Your task to perform on an android device: turn off translation in the chrome app Image 0: 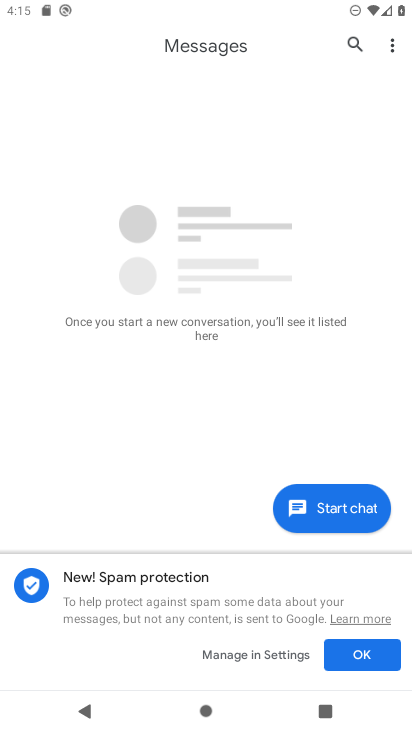
Step 0: press home button
Your task to perform on an android device: turn off translation in the chrome app Image 1: 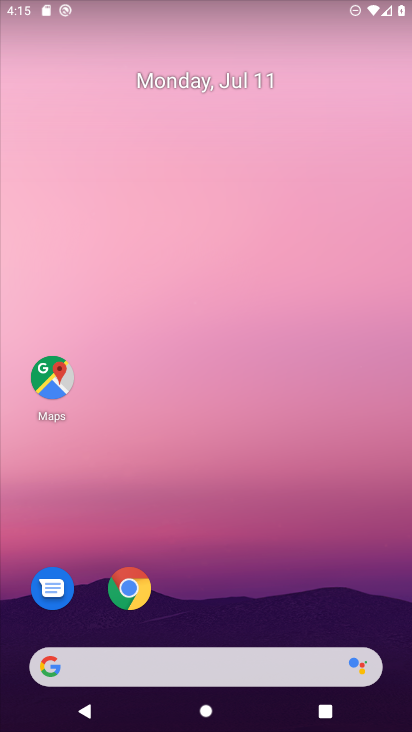
Step 1: drag from (305, 563) to (346, 2)
Your task to perform on an android device: turn off translation in the chrome app Image 2: 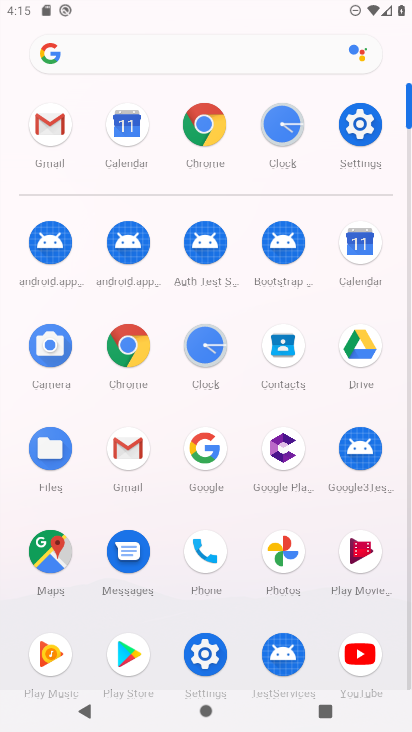
Step 2: click (213, 120)
Your task to perform on an android device: turn off translation in the chrome app Image 3: 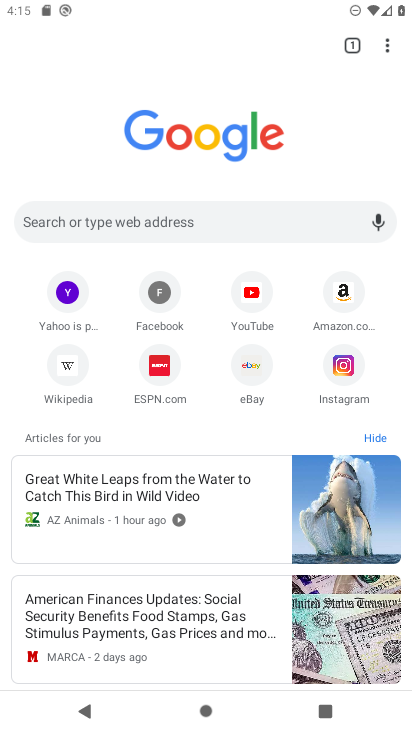
Step 3: drag from (387, 36) to (222, 431)
Your task to perform on an android device: turn off translation in the chrome app Image 4: 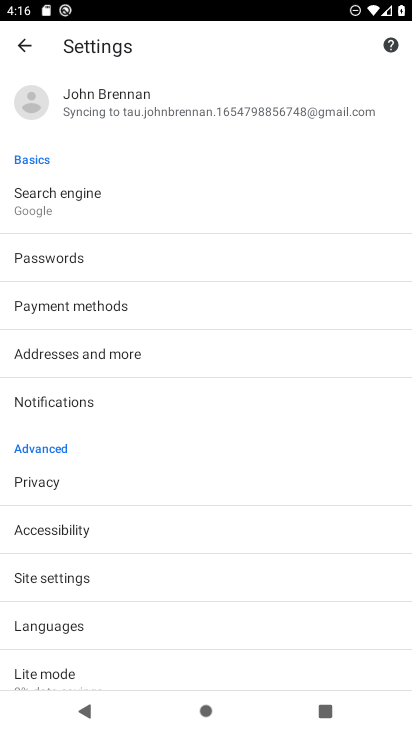
Step 4: click (37, 622)
Your task to perform on an android device: turn off translation in the chrome app Image 5: 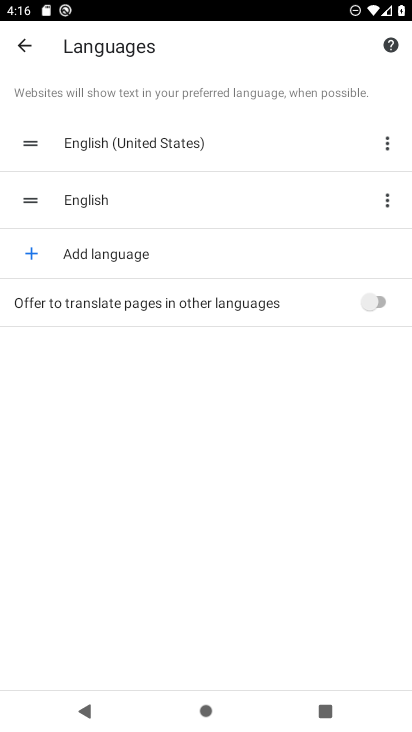
Step 5: task complete